Your task to perform on an android device: clear history in the chrome app Image 0: 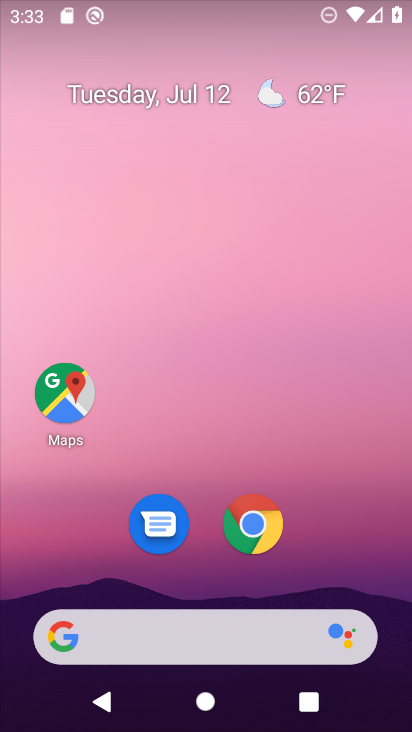
Step 0: click (275, 530)
Your task to perform on an android device: clear history in the chrome app Image 1: 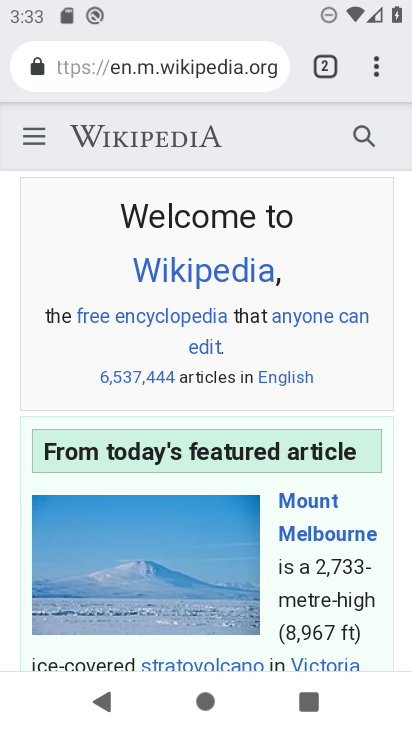
Step 1: click (378, 61)
Your task to perform on an android device: clear history in the chrome app Image 2: 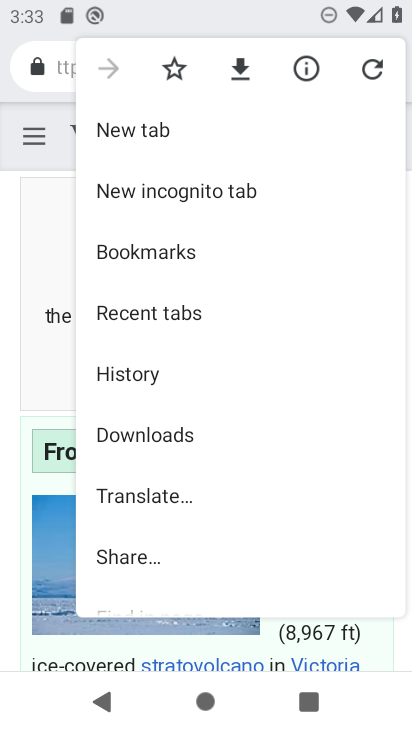
Step 2: click (146, 367)
Your task to perform on an android device: clear history in the chrome app Image 3: 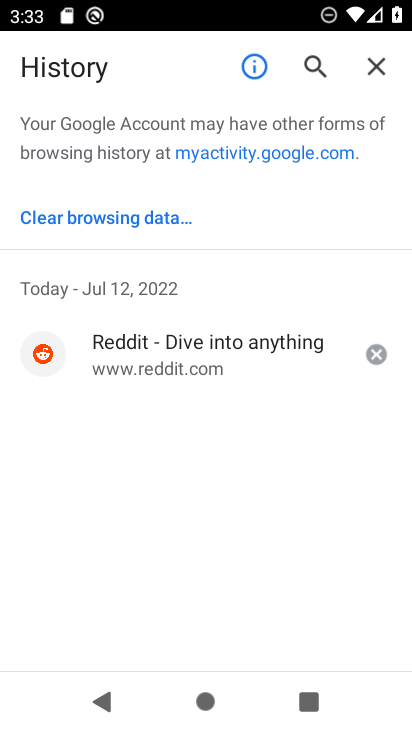
Step 3: click (135, 214)
Your task to perform on an android device: clear history in the chrome app Image 4: 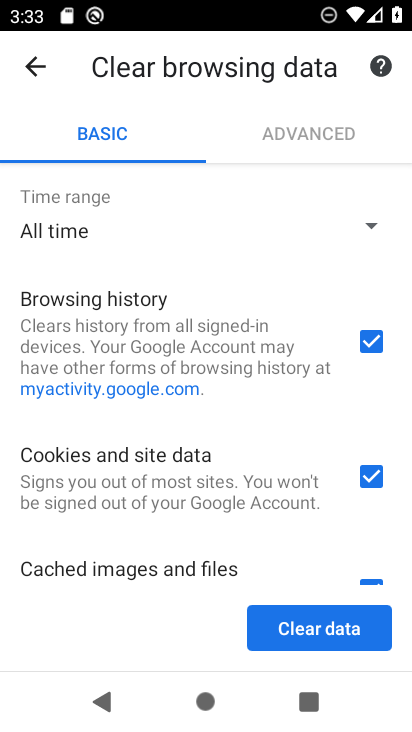
Step 4: click (337, 622)
Your task to perform on an android device: clear history in the chrome app Image 5: 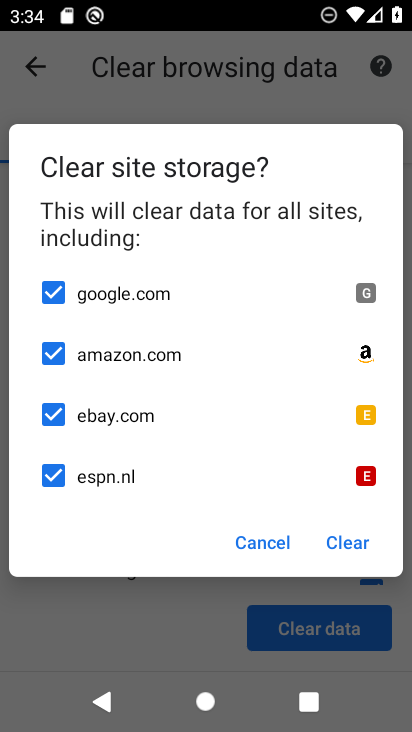
Step 5: click (349, 539)
Your task to perform on an android device: clear history in the chrome app Image 6: 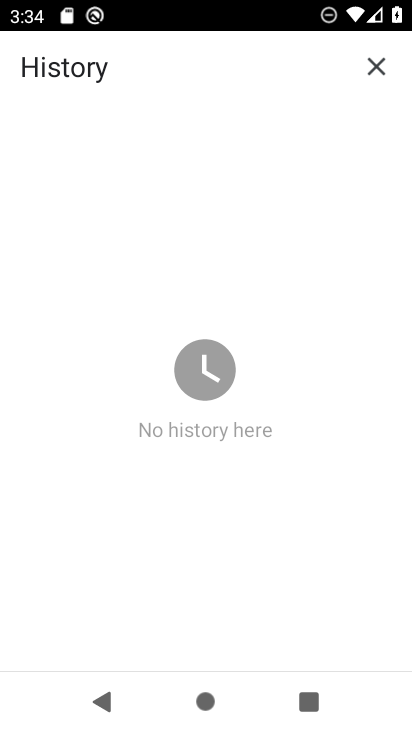
Step 6: task complete